Your task to perform on an android device: turn on sleep mode Image 0: 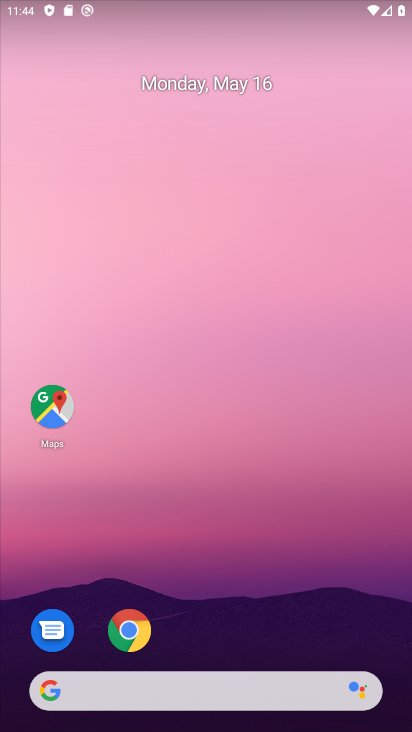
Step 0: drag from (374, 653) to (363, 362)
Your task to perform on an android device: turn on sleep mode Image 1: 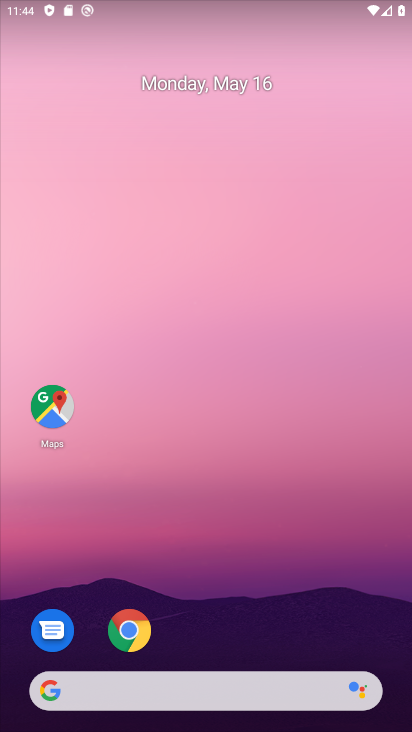
Step 1: drag from (399, 673) to (398, 463)
Your task to perform on an android device: turn on sleep mode Image 2: 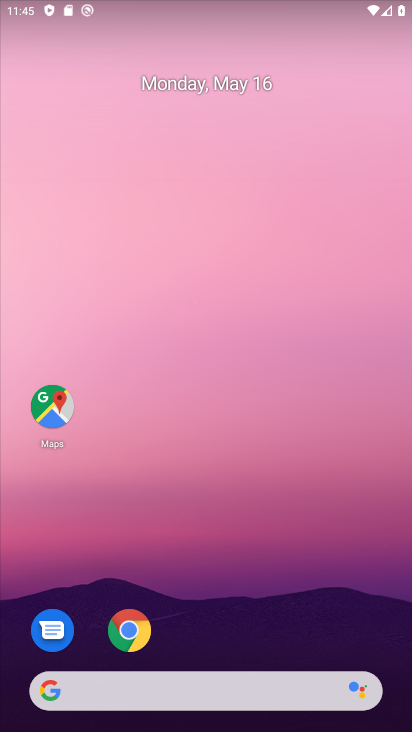
Step 2: drag from (372, 629) to (350, 372)
Your task to perform on an android device: turn on sleep mode Image 3: 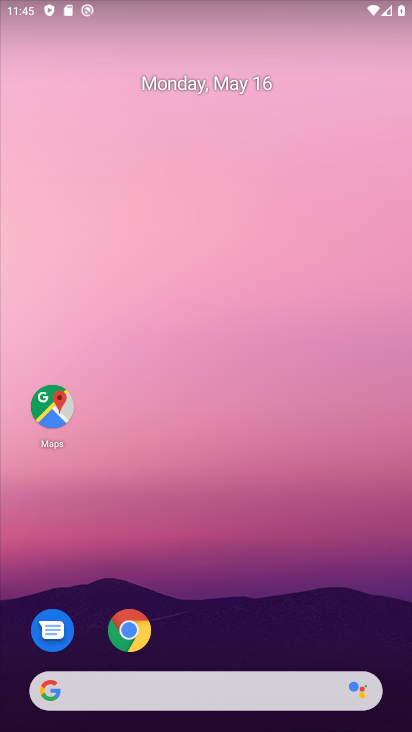
Step 3: click (325, 366)
Your task to perform on an android device: turn on sleep mode Image 4: 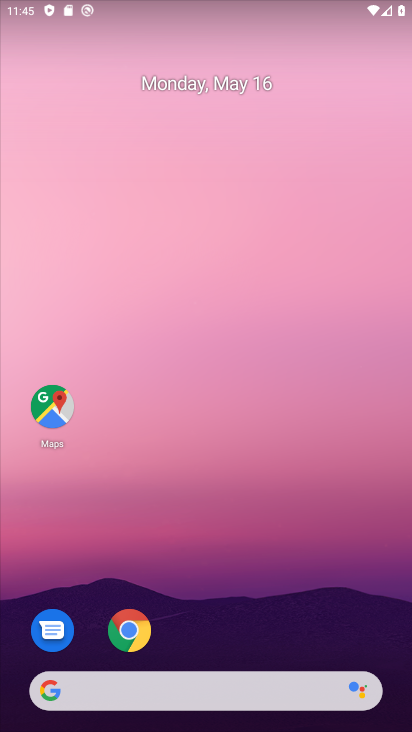
Step 4: drag from (381, 634) to (274, 247)
Your task to perform on an android device: turn on sleep mode Image 5: 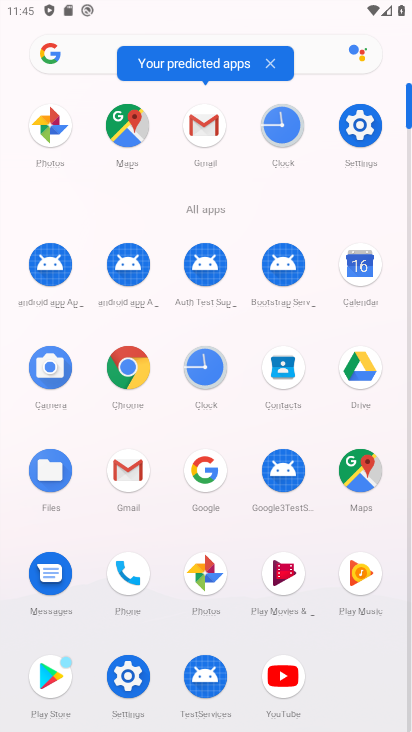
Step 5: click (130, 665)
Your task to perform on an android device: turn on sleep mode Image 6: 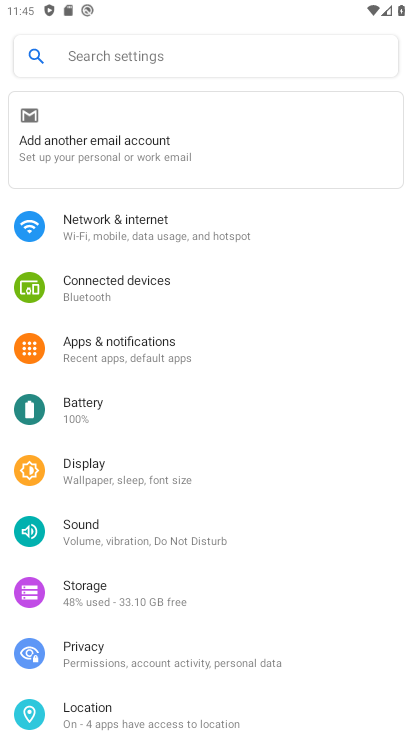
Step 6: click (106, 473)
Your task to perform on an android device: turn on sleep mode Image 7: 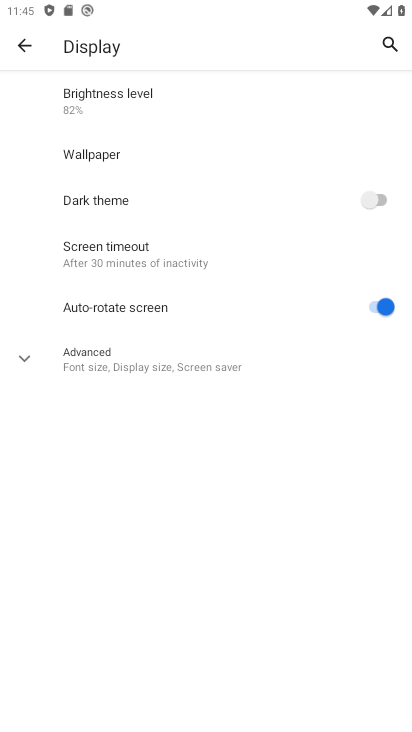
Step 7: click (111, 247)
Your task to perform on an android device: turn on sleep mode Image 8: 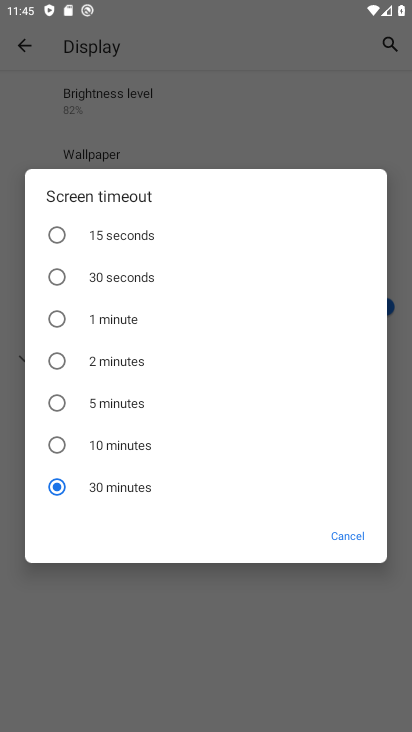
Step 8: task complete